Your task to perform on an android device: Open Reddit.com Image 0: 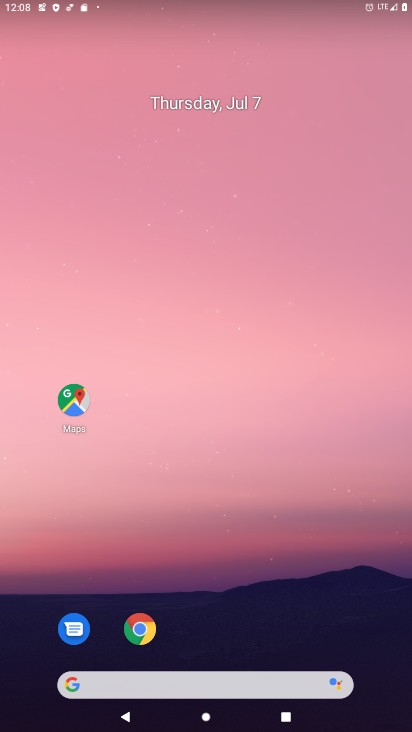
Step 0: click (137, 625)
Your task to perform on an android device: Open Reddit.com Image 1: 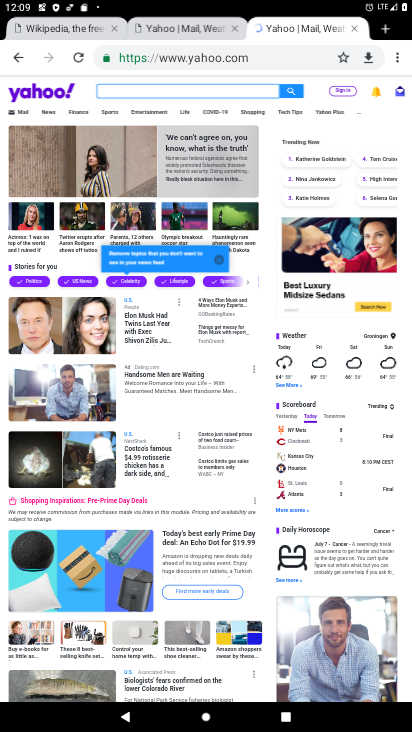
Step 1: click (384, 26)
Your task to perform on an android device: Open Reddit.com Image 2: 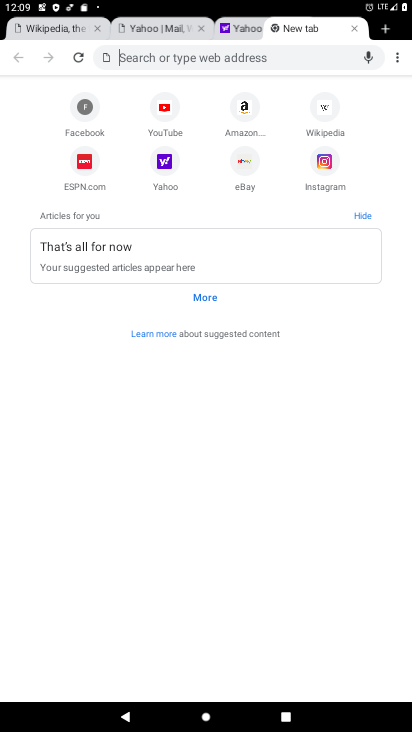
Step 2: type "Reddt.com"
Your task to perform on an android device: Open Reddit.com Image 3: 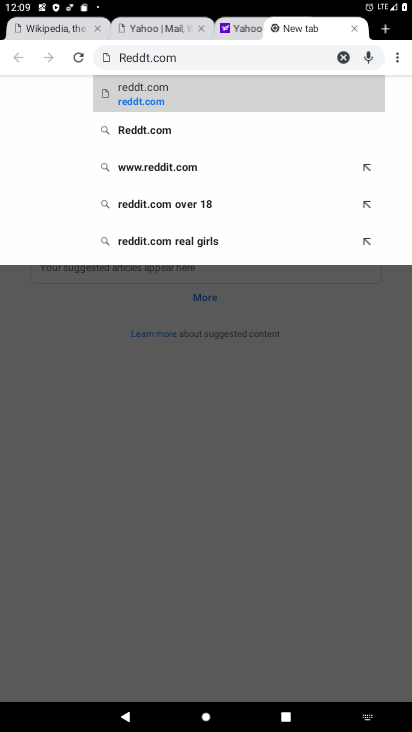
Step 3: click (159, 133)
Your task to perform on an android device: Open Reddit.com Image 4: 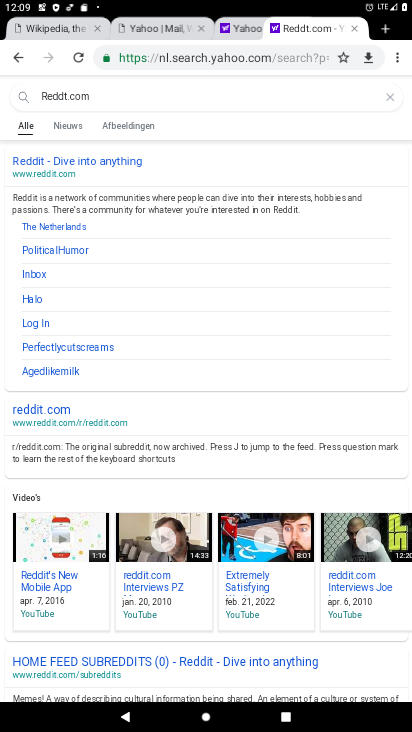
Step 4: click (120, 164)
Your task to perform on an android device: Open Reddit.com Image 5: 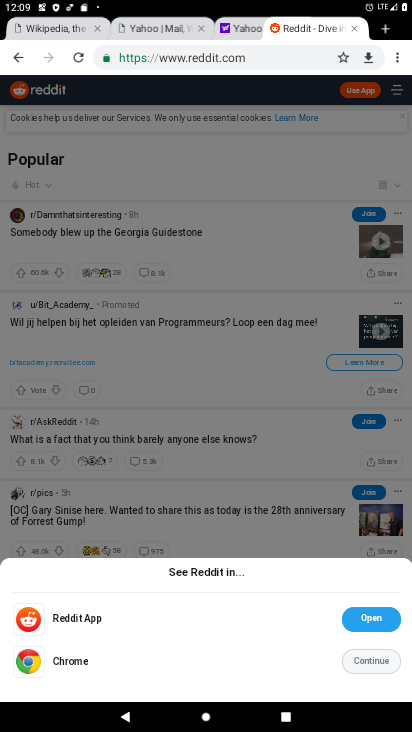
Step 5: click (372, 659)
Your task to perform on an android device: Open Reddit.com Image 6: 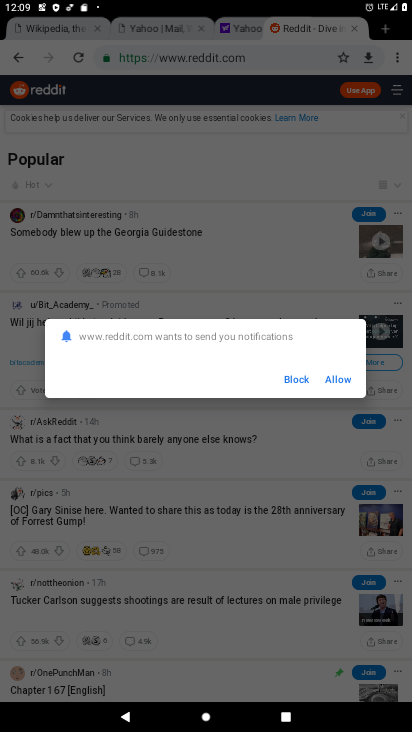
Step 6: click (335, 377)
Your task to perform on an android device: Open Reddit.com Image 7: 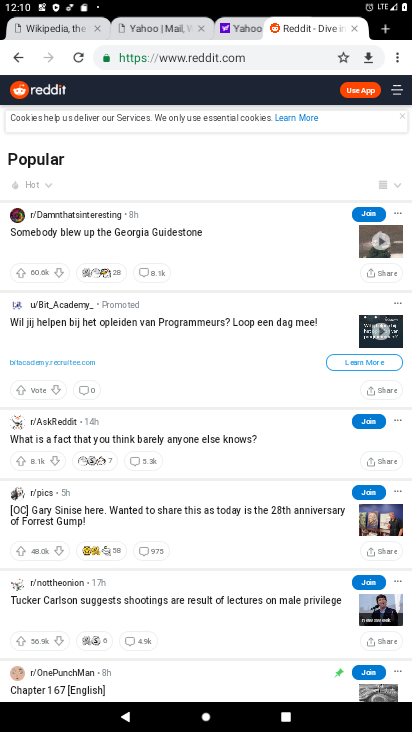
Step 7: task complete